Your task to perform on an android device: open app "Google Calendar" (install if not already installed) Image 0: 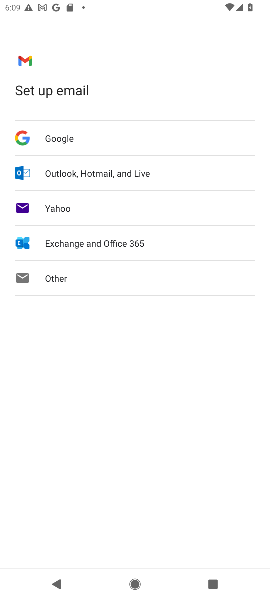
Step 0: press home button
Your task to perform on an android device: open app "Google Calendar" (install if not already installed) Image 1: 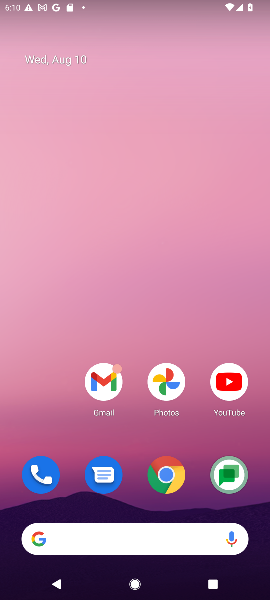
Step 1: type "google calendar"
Your task to perform on an android device: open app "Google Calendar" (install if not already installed) Image 2: 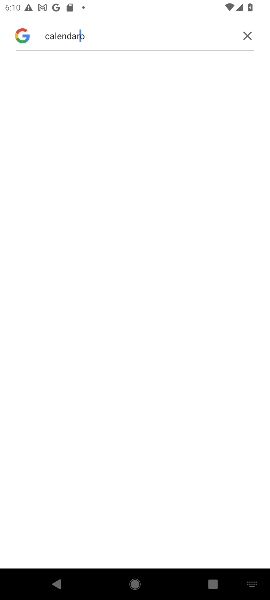
Step 2: click (156, 102)
Your task to perform on an android device: open app "Google Calendar" (install if not already installed) Image 3: 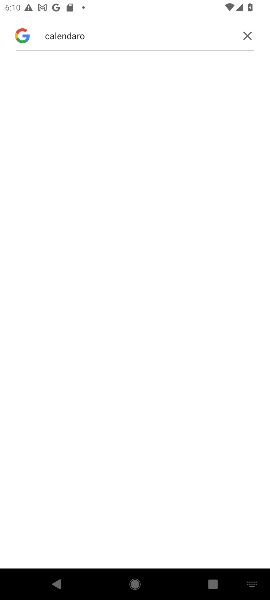
Step 3: click (248, 37)
Your task to perform on an android device: open app "Google Calendar" (install if not already installed) Image 4: 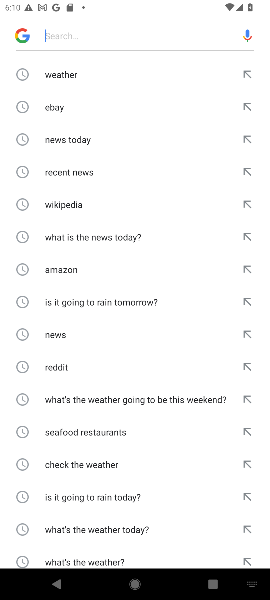
Step 4: press home button
Your task to perform on an android device: open app "Google Calendar" (install if not already installed) Image 5: 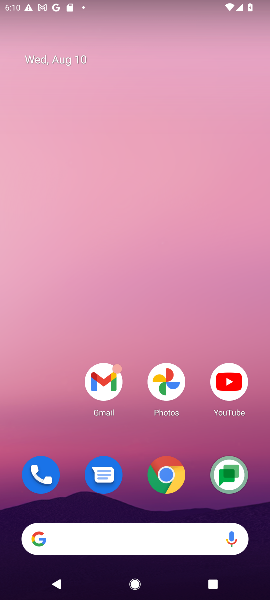
Step 5: drag from (114, 519) to (117, 216)
Your task to perform on an android device: open app "Google Calendar" (install if not already installed) Image 6: 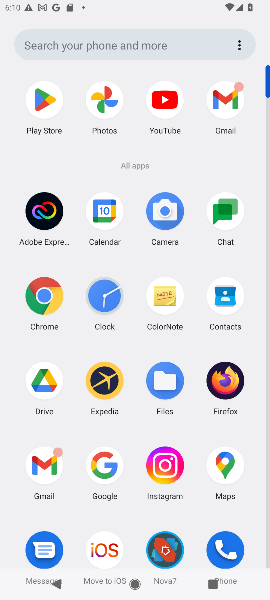
Step 6: click (53, 98)
Your task to perform on an android device: open app "Google Calendar" (install if not already installed) Image 7: 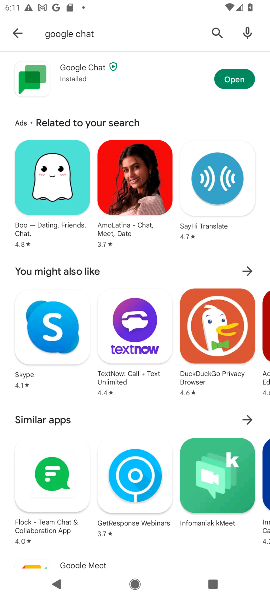
Step 7: click (212, 32)
Your task to perform on an android device: open app "Google Calendar" (install if not already installed) Image 8: 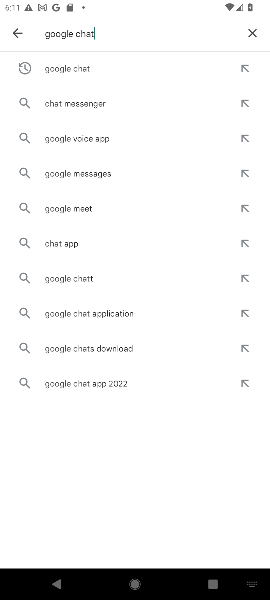
Step 8: click (251, 33)
Your task to perform on an android device: open app "Google Calendar" (install if not already installed) Image 9: 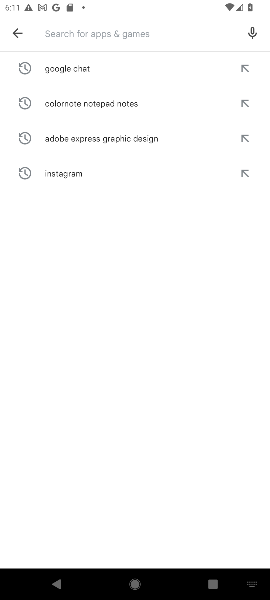
Step 9: type "google calender"
Your task to perform on an android device: open app "Google Calendar" (install if not already installed) Image 10: 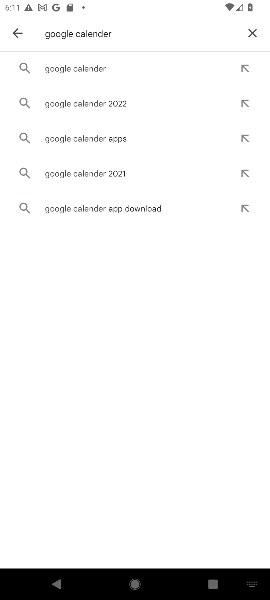
Step 10: click (89, 73)
Your task to perform on an android device: open app "Google Calendar" (install if not already installed) Image 11: 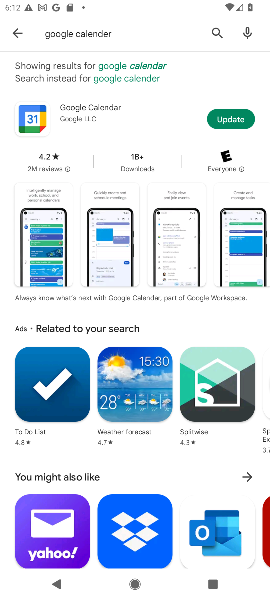
Step 11: click (104, 111)
Your task to perform on an android device: open app "Google Calendar" (install if not already installed) Image 12: 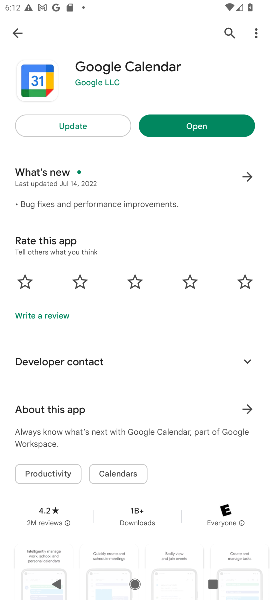
Step 12: click (160, 123)
Your task to perform on an android device: open app "Google Calendar" (install if not already installed) Image 13: 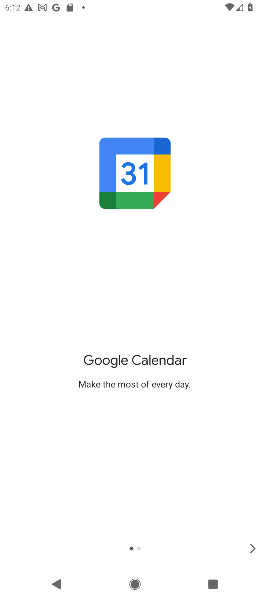
Step 13: task complete